Your task to perform on an android device: turn smart compose on in the gmail app Image 0: 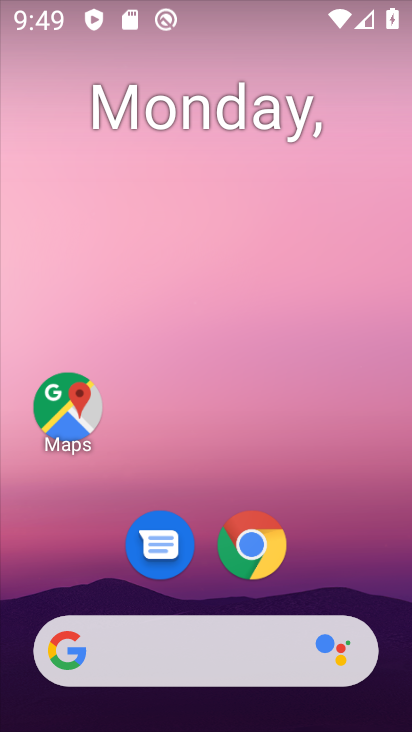
Step 0: drag from (157, 287) to (204, 182)
Your task to perform on an android device: turn smart compose on in the gmail app Image 1: 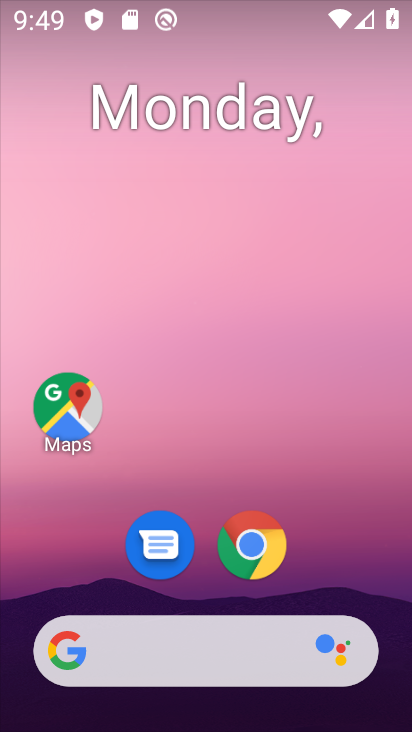
Step 1: drag from (52, 484) to (177, 69)
Your task to perform on an android device: turn smart compose on in the gmail app Image 2: 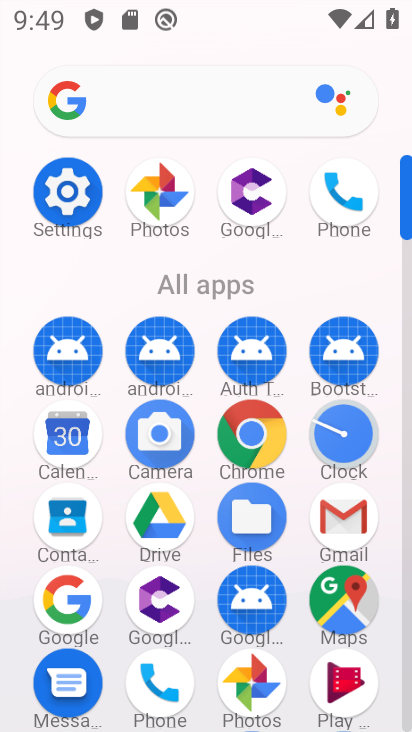
Step 2: drag from (5, 591) to (205, 53)
Your task to perform on an android device: turn smart compose on in the gmail app Image 3: 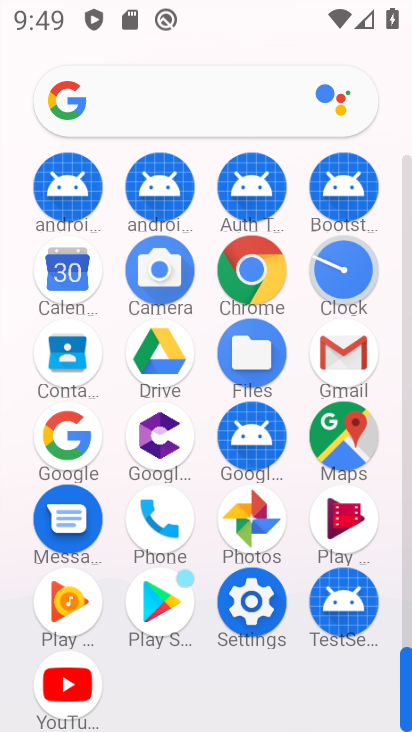
Step 3: click (240, 613)
Your task to perform on an android device: turn smart compose on in the gmail app Image 4: 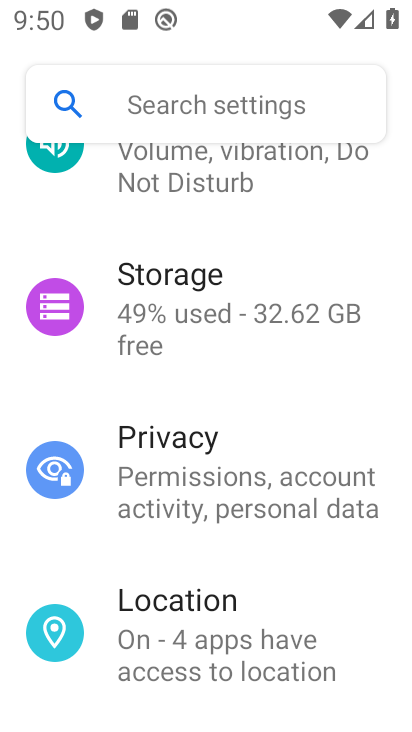
Step 4: press home button
Your task to perform on an android device: turn smart compose on in the gmail app Image 5: 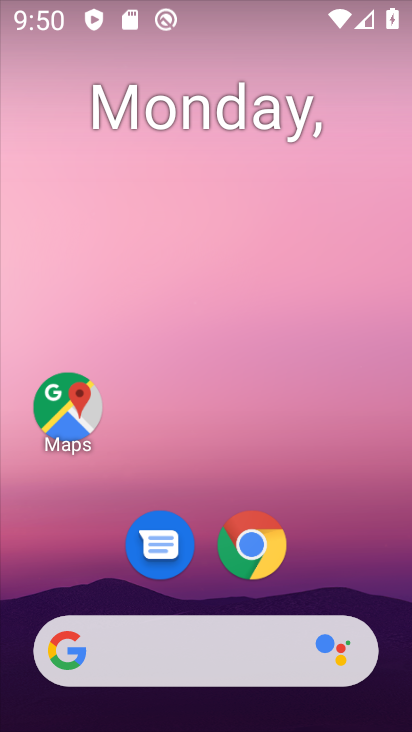
Step 5: drag from (49, 581) to (328, 150)
Your task to perform on an android device: turn smart compose on in the gmail app Image 6: 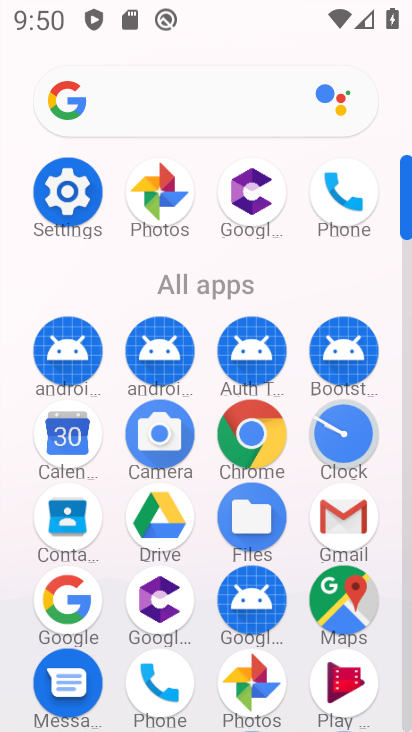
Step 6: click (342, 511)
Your task to perform on an android device: turn smart compose on in the gmail app Image 7: 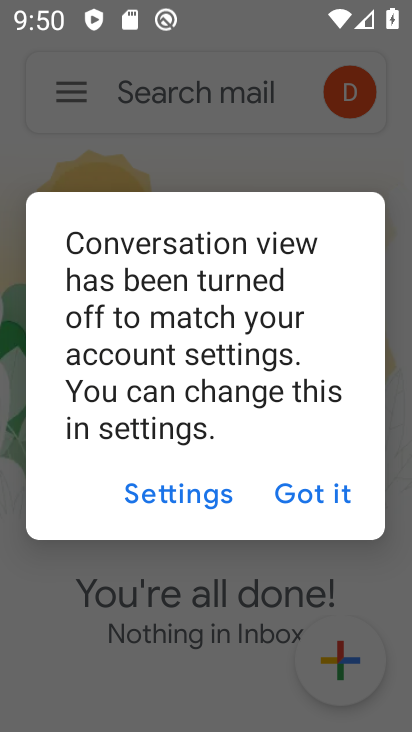
Step 7: click (310, 494)
Your task to perform on an android device: turn smart compose on in the gmail app Image 8: 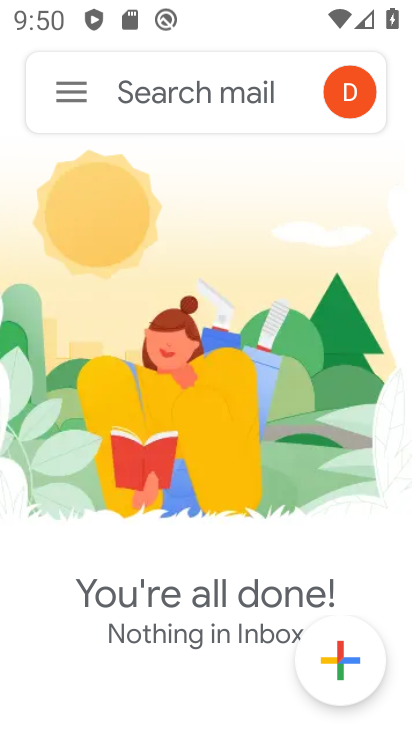
Step 8: click (85, 109)
Your task to perform on an android device: turn smart compose on in the gmail app Image 9: 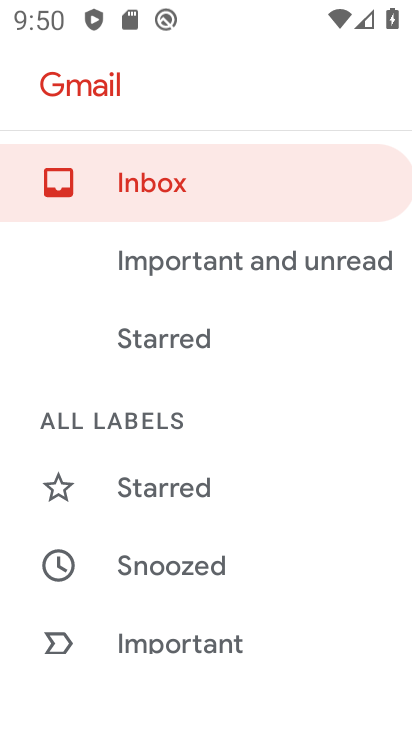
Step 9: drag from (48, 657) to (280, 102)
Your task to perform on an android device: turn smart compose on in the gmail app Image 10: 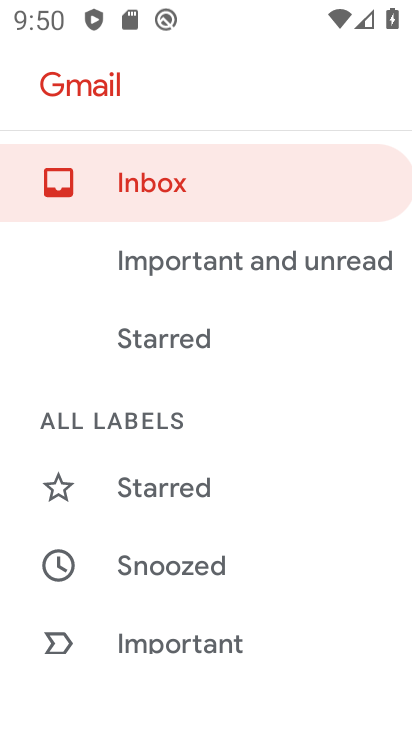
Step 10: drag from (13, 630) to (223, 191)
Your task to perform on an android device: turn smart compose on in the gmail app Image 11: 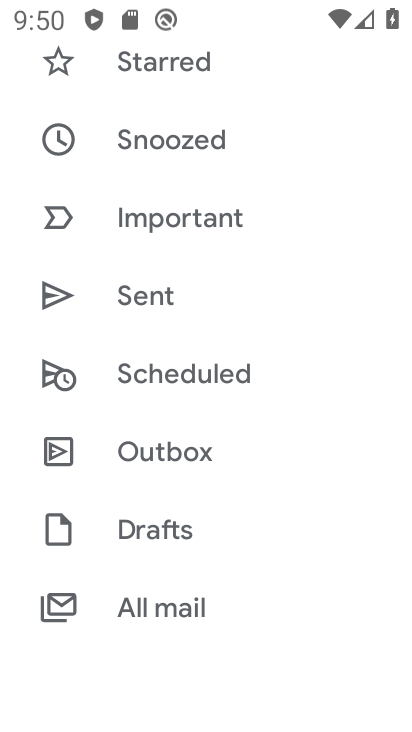
Step 11: drag from (10, 673) to (184, 299)
Your task to perform on an android device: turn smart compose on in the gmail app Image 12: 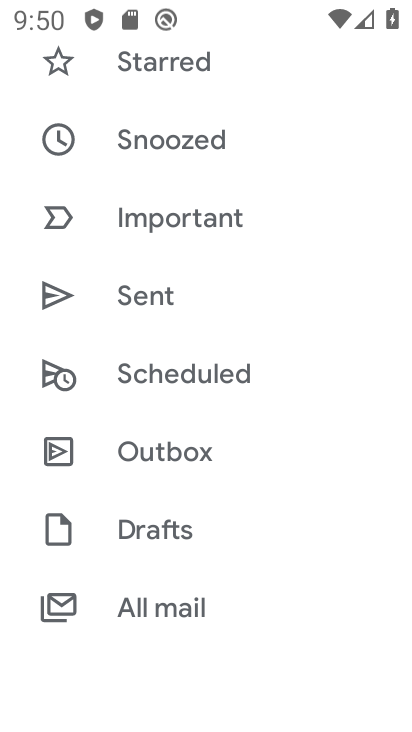
Step 12: drag from (30, 567) to (236, 181)
Your task to perform on an android device: turn smart compose on in the gmail app Image 13: 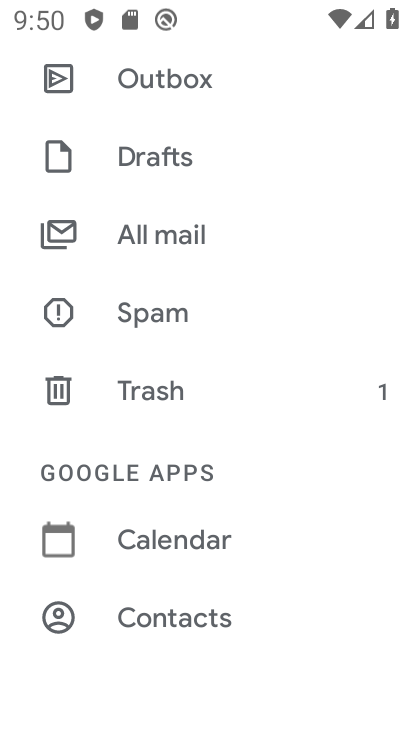
Step 13: drag from (7, 606) to (242, 128)
Your task to perform on an android device: turn smart compose on in the gmail app Image 14: 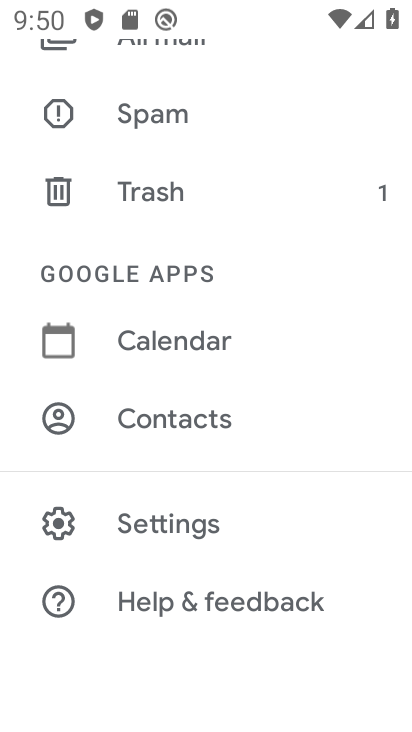
Step 14: click (117, 502)
Your task to perform on an android device: turn smart compose on in the gmail app Image 15: 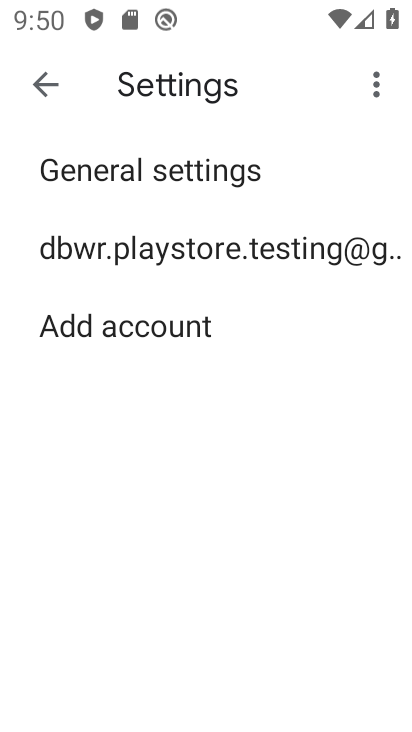
Step 15: click (203, 236)
Your task to perform on an android device: turn smart compose on in the gmail app Image 16: 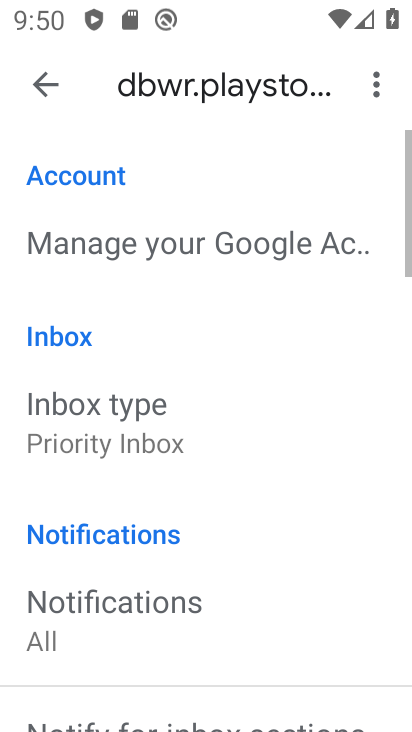
Step 16: task complete